Your task to perform on an android device: What is the recent news? Image 0: 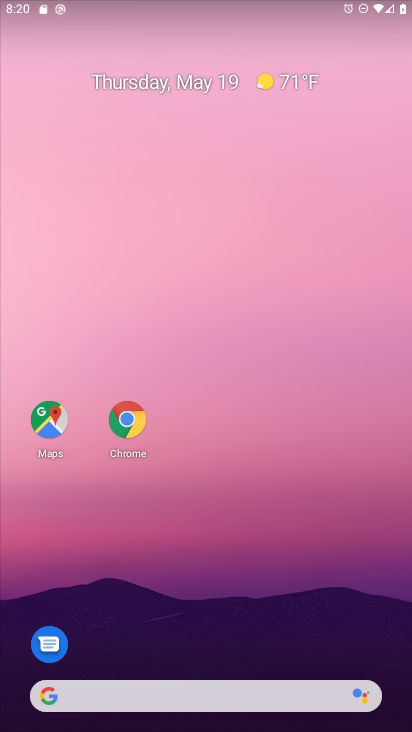
Step 0: drag from (164, 656) to (173, 363)
Your task to perform on an android device: What is the recent news? Image 1: 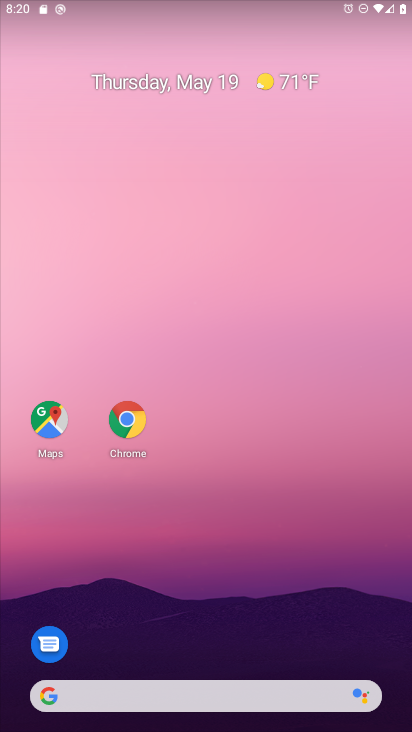
Step 1: drag from (247, 664) to (233, 220)
Your task to perform on an android device: What is the recent news? Image 2: 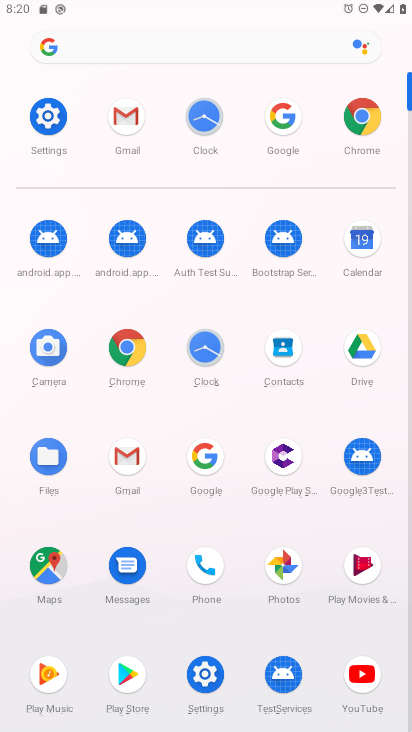
Step 2: click (220, 459)
Your task to perform on an android device: What is the recent news? Image 3: 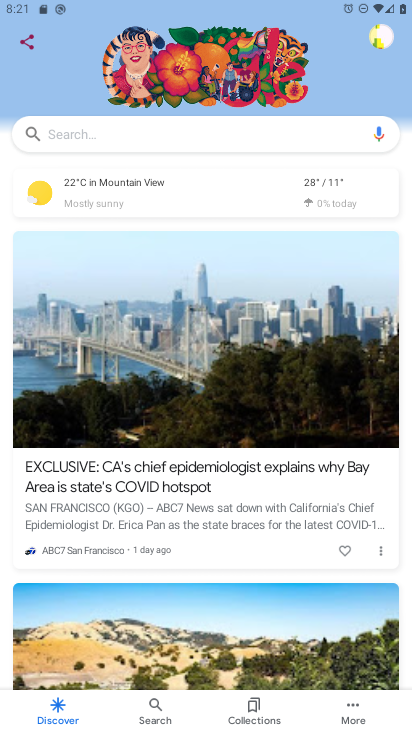
Step 3: click (133, 128)
Your task to perform on an android device: What is the recent news? Image 4: 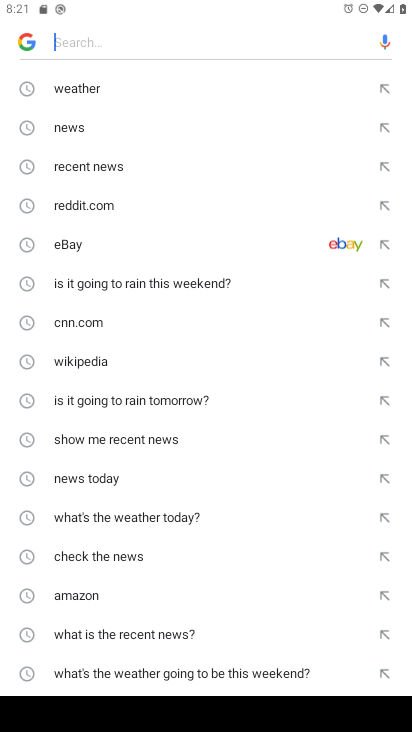
Step 4: click (84, 171)
Your task to perform on an android device: What is the recent news? Image 5: 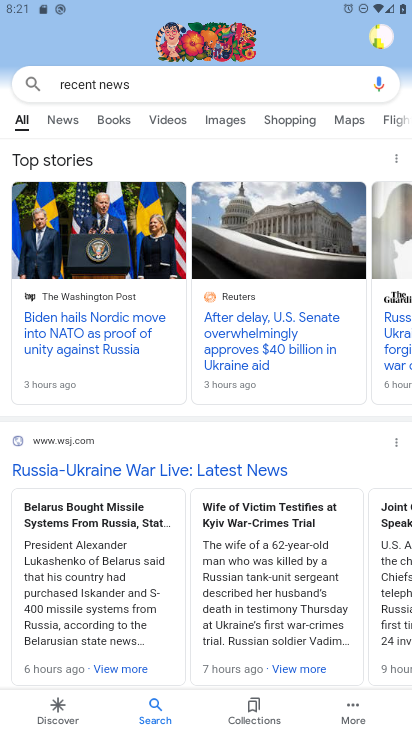
Step 5: task complete